Your task to perform on an android device: What's the weather? Image 0: 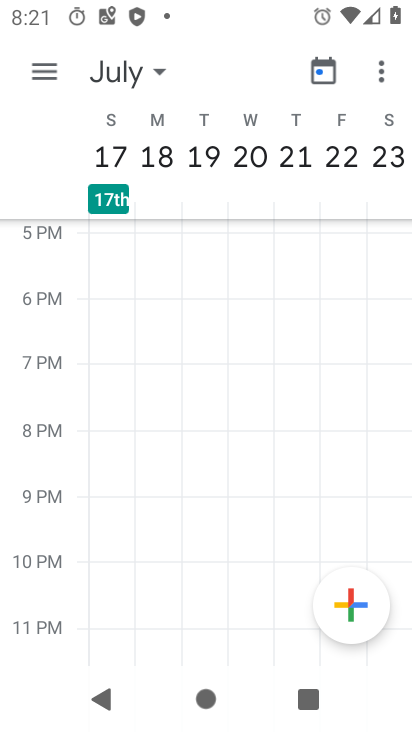
Step 0: press back button
Your task to perform on an android device: What's the weather? Image 1: 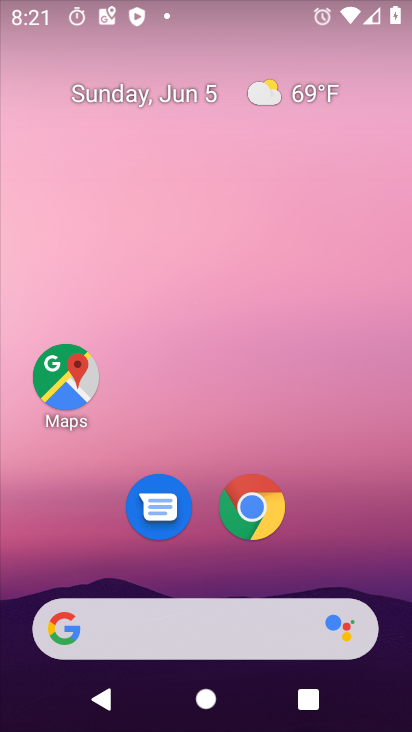
Step 1: drag from (389, 569) to (297, 30)
Your task to perform on an android device: What's the weather? Image 2: 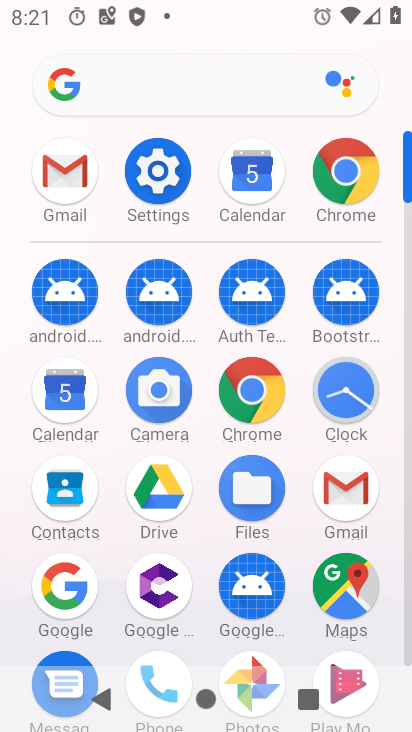
Step 2: click (344, 169)
Your task to perform on an android device: What's the weather? Image 3: 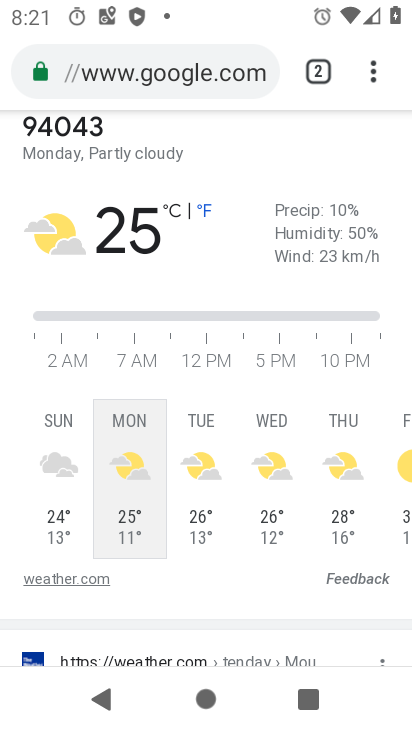
Step 3: click (187, 47)
Your task to perform on an android device: What's the weather? Image 4: 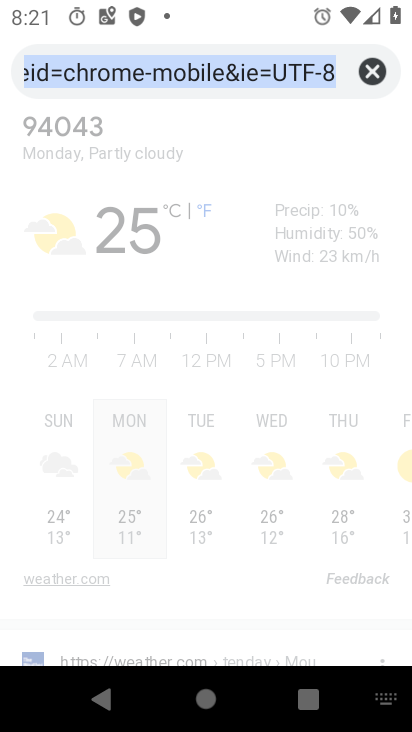
Step 4: click (368, 76)
Your task to perform on an android device: What's the weather? Image 5: 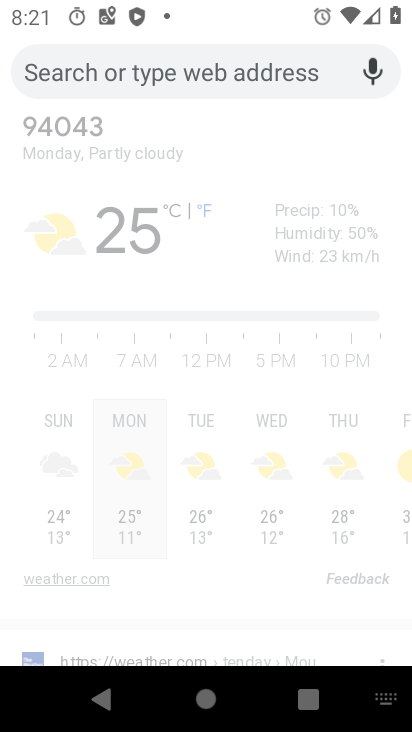
Step 5: type "What's the weather?"
Your task to perform on an android device: What's the weather? Image 6: 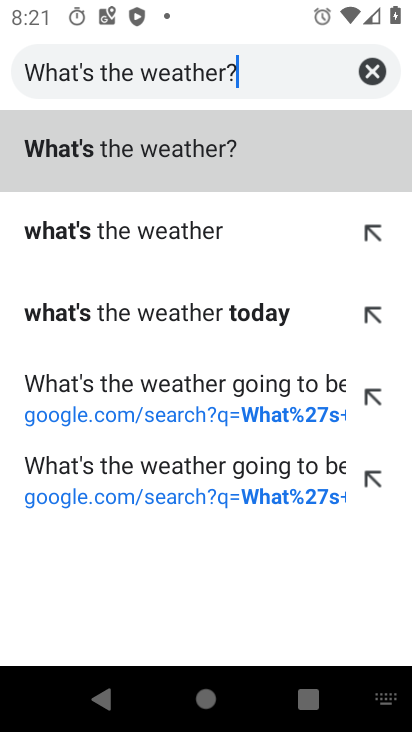
Step 6: type ""
Your task to perform on an android device: What's the weather? Image 7: 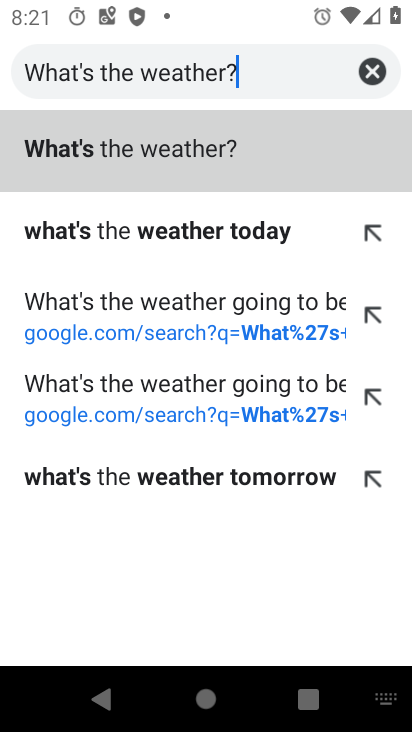
Step 7: click (213, 148)
Your task to perform on an android device: What's the weather? Image 8: 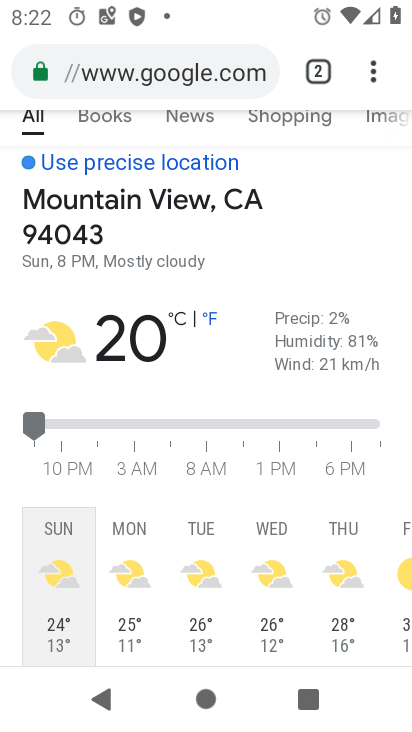
Step 8: task complete